Your task to perform on an android device: turn off picture-in-picture Image 0: 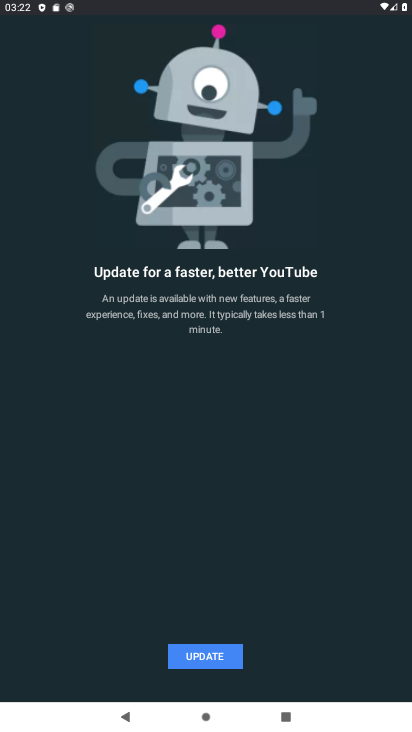
Step 0: press home button
Your task to perform on an android device: turn off picture-in-picture Image 1: 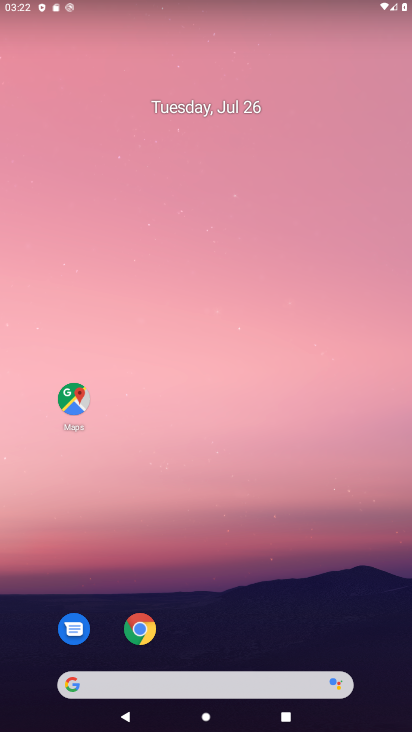
Step 1: drag from (302, 617) to (326, 41)
Your task to perform on an android device: turn off picture-in-picture Image 2: 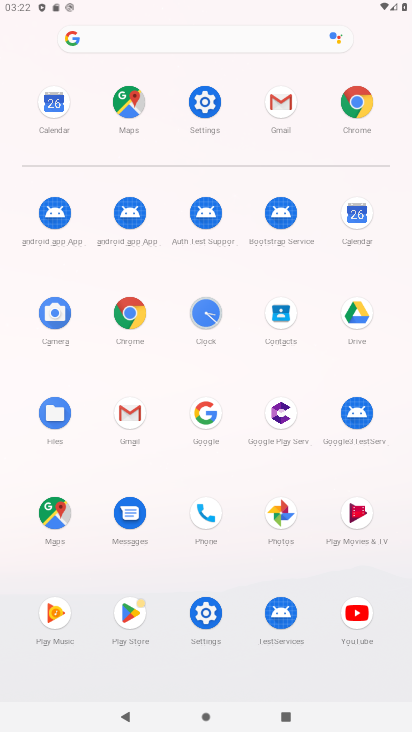
Step 2: click (128, 311)
Your task to perform on an android device: turn off picture-in-picture Image 3: 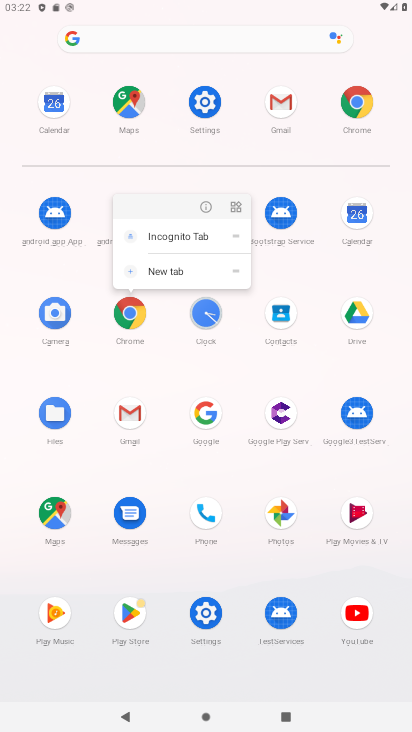
Step 3: click (209, 208)
Your task to perform on an android device: turn off picture-in-picture Image 4: 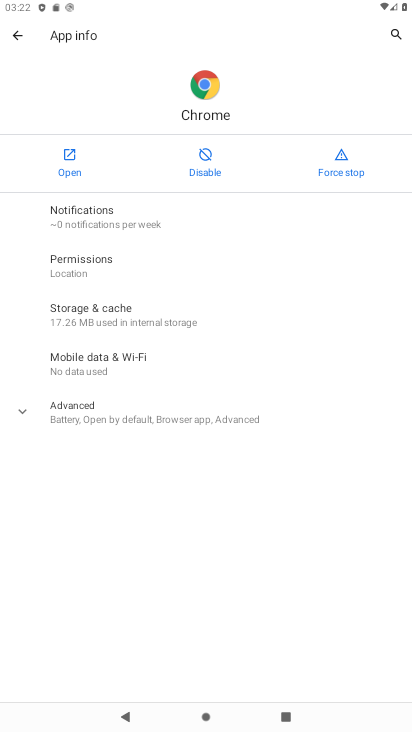
Step 4: click (129, 418)
Your task to perform on an android device: turn off picture-in-picture Image 5: 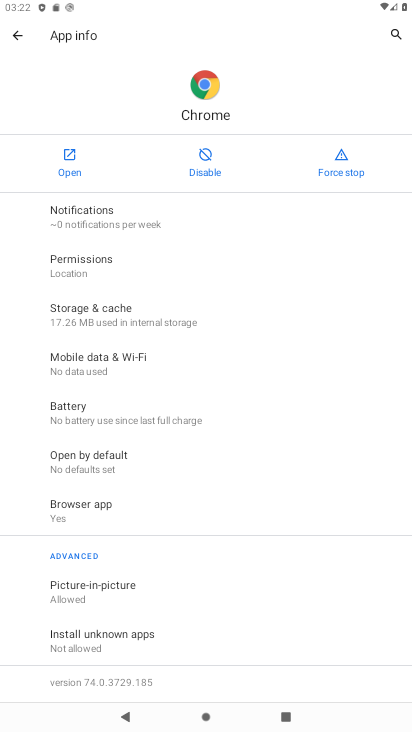
Step 5: click (122, 590)
Your task to perform on an android device: turn off picture-in-picture Image 6: 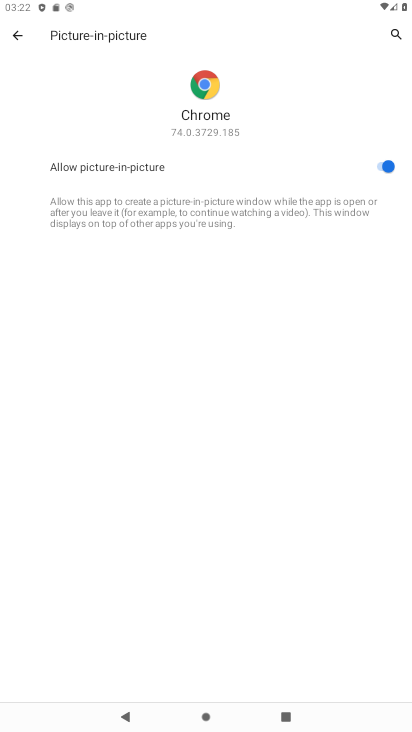
Step 6: click (278, 166)
Your task to perform on an android device: turn off picture-in-picture Image 7: 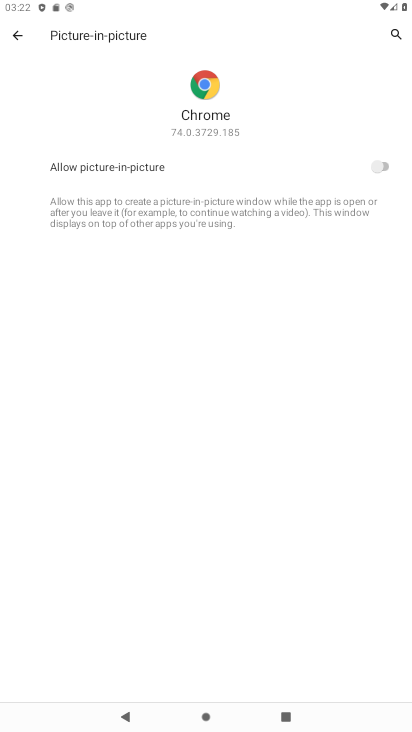
Step 7: task complete